Your task to perform on an android device: Set the phone to "Do not disturb". Image 0: 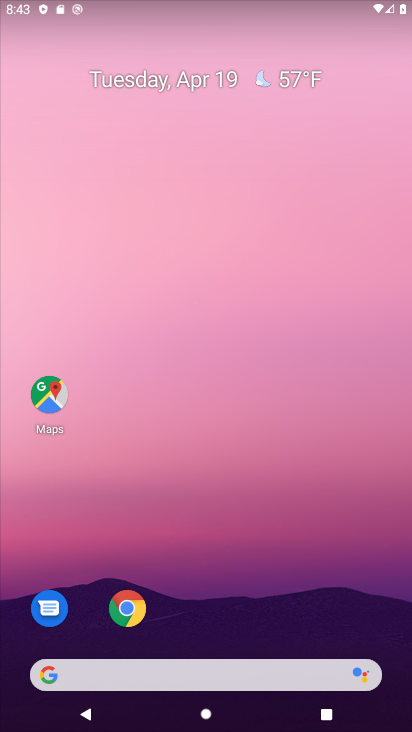
Step 0: drag from (240, 582) to (223, 192)
Your task to perform on an android device: Set the phone to "Do not disturb". Image 1: 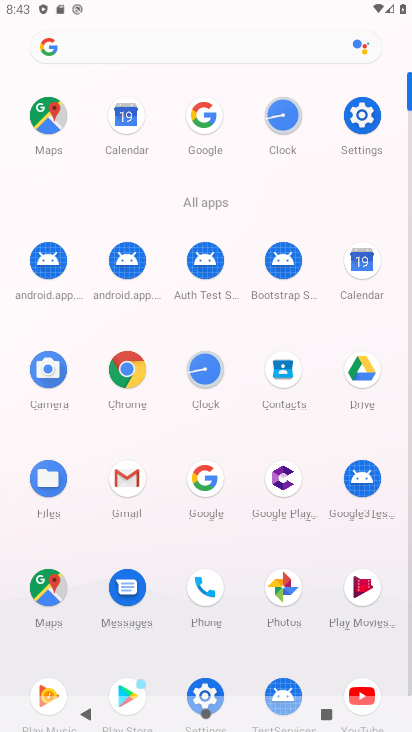
Step 1: click (363, 112)
Your task to perform on an android device: Set the phone to "Do not disturb". Image 2: 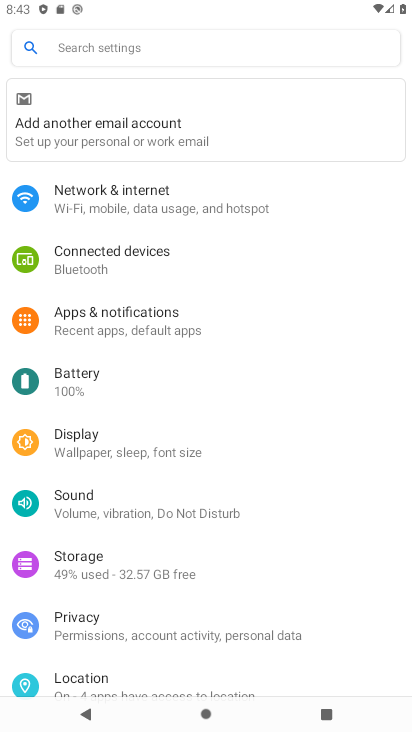
Step 2: drag from (230, 603) to (144, 184)
Your task to perform on an android device: Set the phone to "Do not disturb". Image 3: 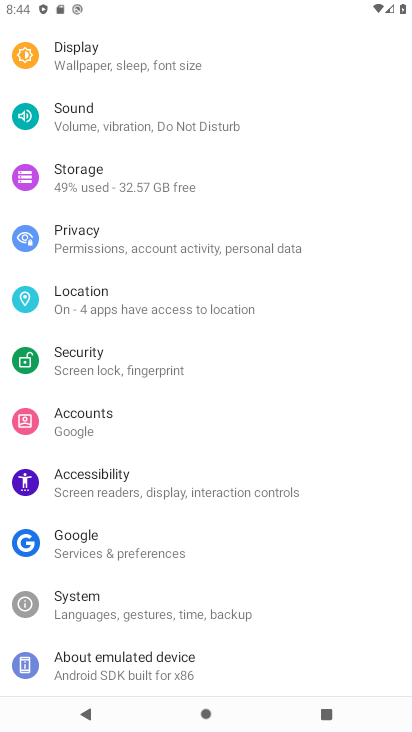
Step 3: click (113, 114)
Your task to perform on an android device: Set the phone to "Do not disturb". Image 4: 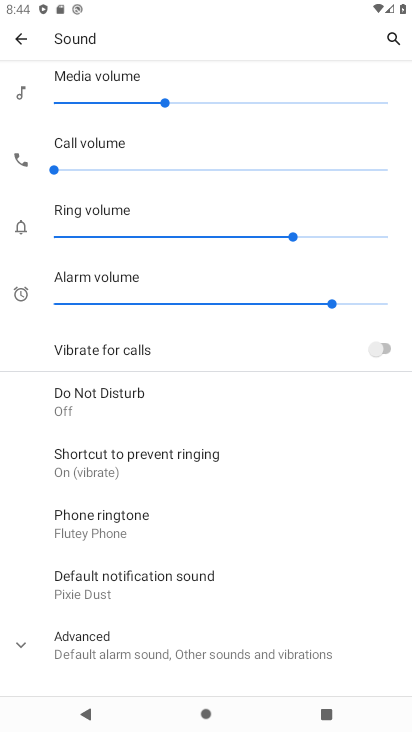
Step 4: drag from (211, 564) to (277, 234)
Your task to perform on an android device: Set the phone to "Do not disturb". Image 5: 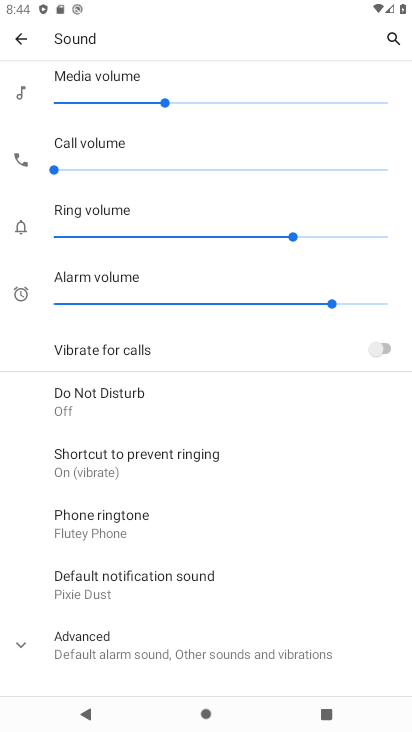
Step 5: click (84, 402)
Your task to perform on an android device: Set the phone to "Do not disturb". Image 6: 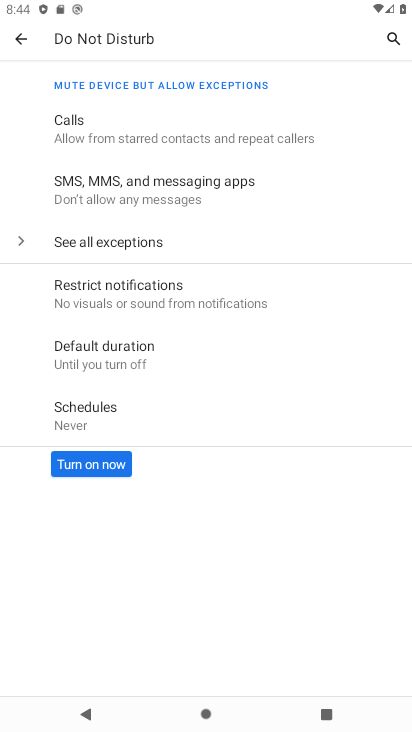
Step 6: click (92, 464)
Your task to perform on an android device: Set the phone to "Do not disturb". Image 7: 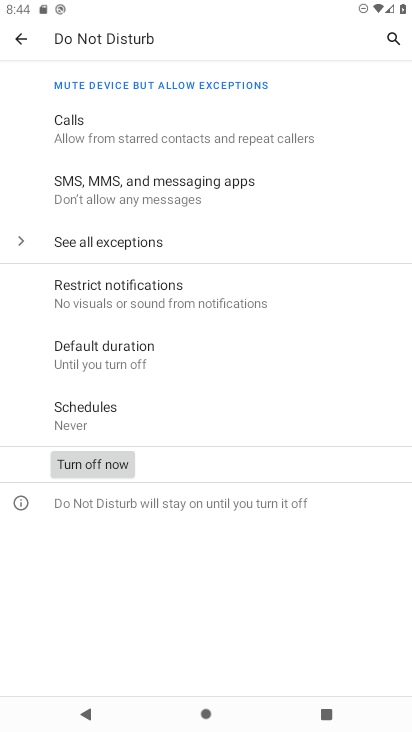
Step 7: task complete